Your task to perform on an android device: Search for vegetarian restaurants on Maps Image 0: 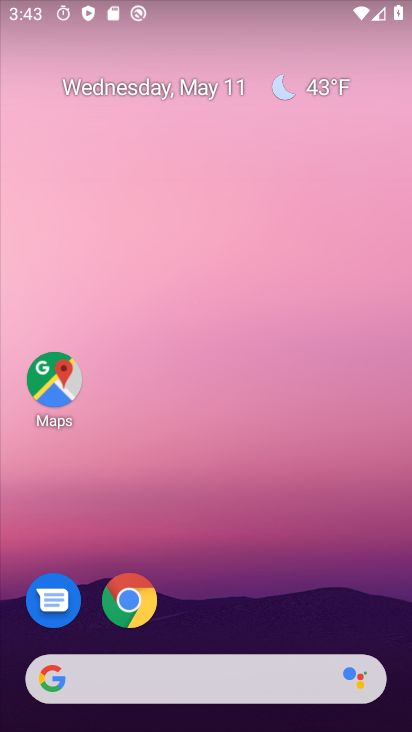
Step 0: drag from (331, 638) to (151, 12)
Your task to perform on an android device: Search for vegetarian restaurants on Maps Image 1: 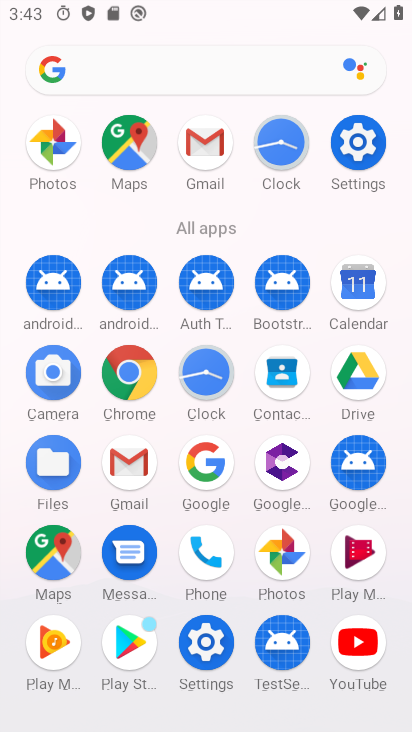
Step 1: click (132, 141)
Your task to perform on an android device: Search for vegetarian restaurants on Maps Image 2: 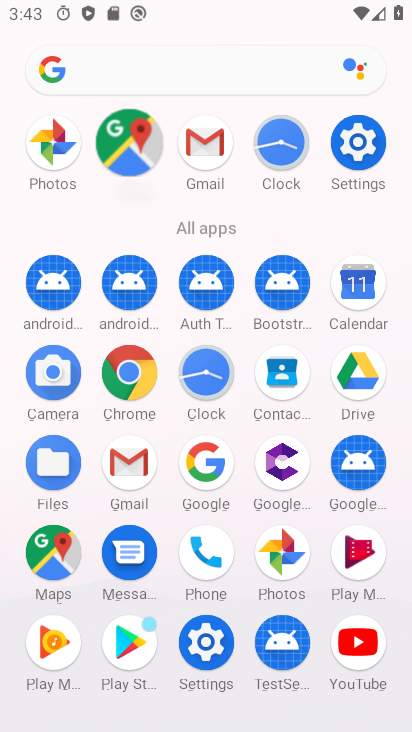
Step 2: click (133, 142)
Your task to perform on an android device: Search for vegetarian restaurants on Maps Image 3: 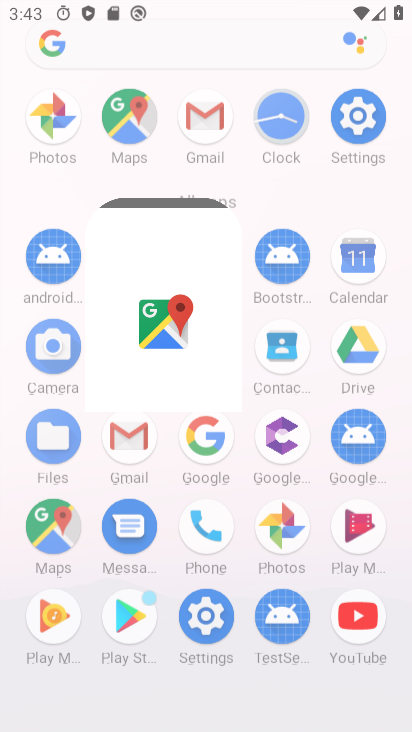
Step 3: click (132, 143)
Your task to perform on an android device: Search for vegetarian restaurants on Maps Image 4: 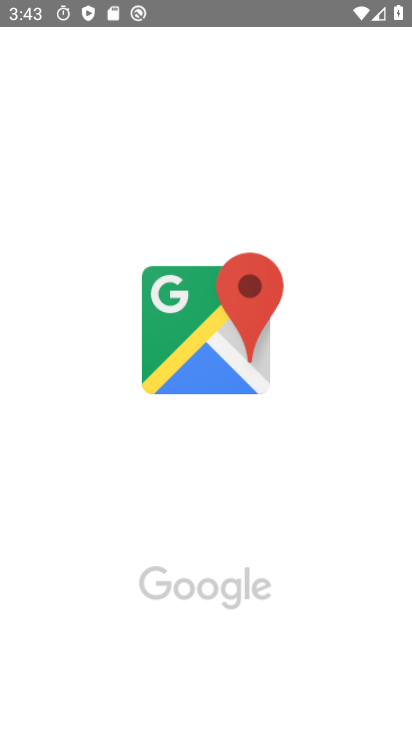
Step 4: click (132, 143)
Your task to perform on an android device: Search for vegetarian restaurants on Maps Image 5: 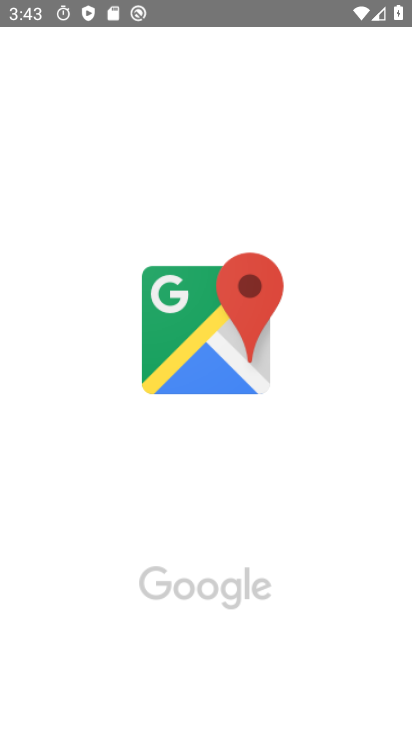
Step 5: click (227, 336)
Your task to perform on an android device: Search for vegetarian restaurants on Maps Image 6: 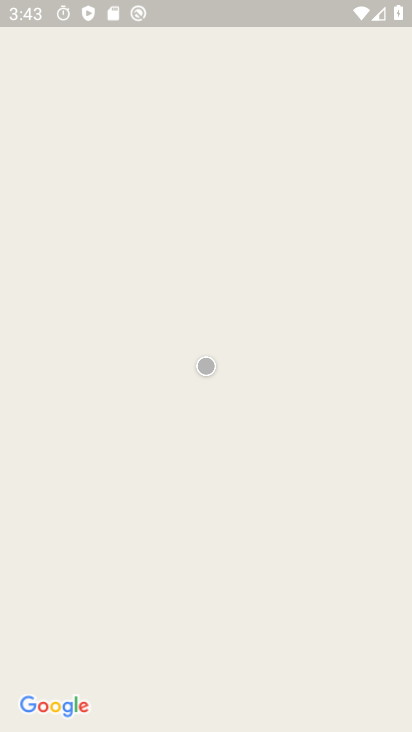
Step 6: drag from (210, 359) to (212, 412)
Your task to perform on an android device: Search for vegetarian restaurants on Maps Image 7: 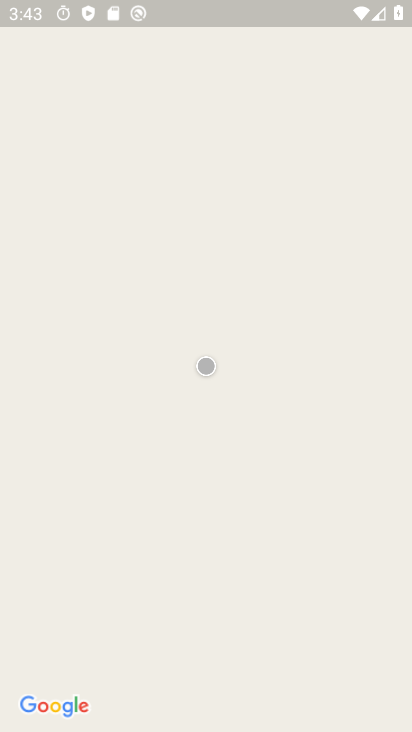
Step 7: drag from (180, 209) to (185, 582)
Your task to perform on an android device: Search for vegetarian restaurants on Maps Image 8: 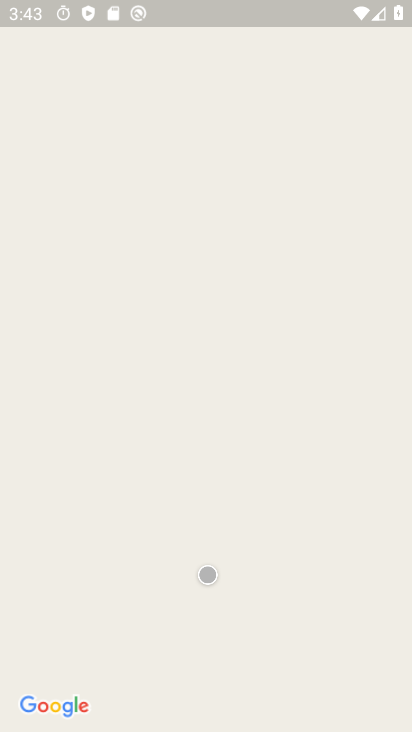
Step 8: drag from (150, 256) to (242, 558)
Your task to perform on an android device: Search for vegetarian restaurants on Maps Image 9: 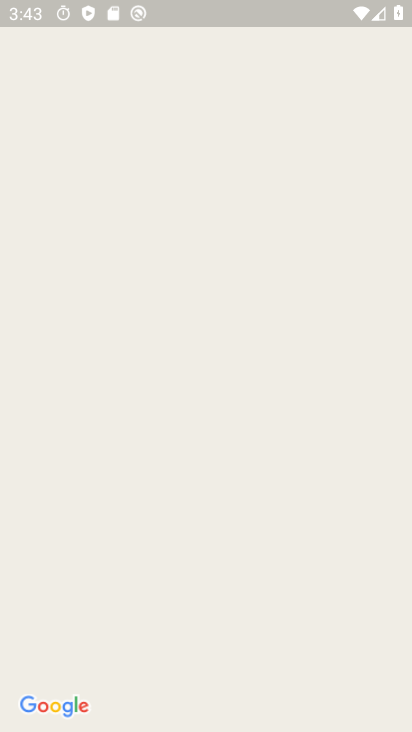
Step 9: drag from (168, 244) to (202, 96)
Your task to perform on an android device: Search for vegetarian restaurants on Maps Image 10: 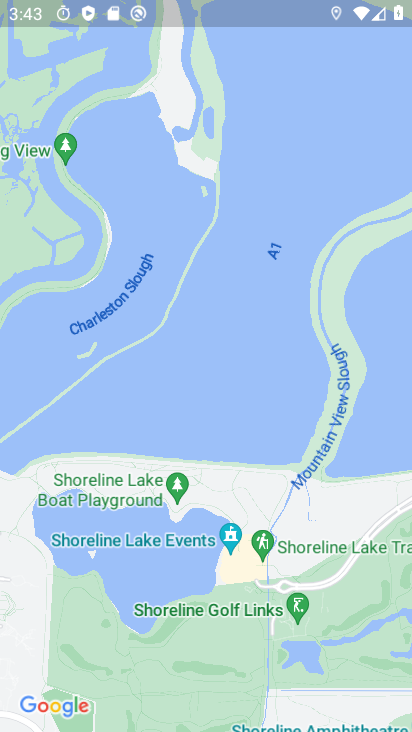
Step 10: press home button
Your task to perform on an android device: Search for vegetarian restaurants on Maps Image 11: 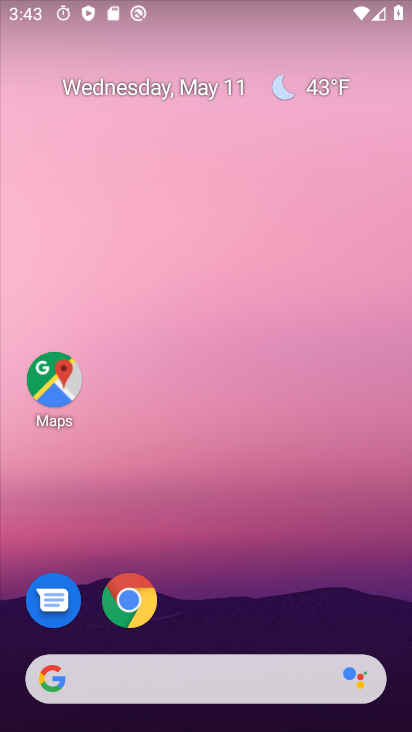
Step 11: drag from (206, 486) to (83, 3)
Your task to perform on an android device: Search for vegetarian restaurants on Maps Image 12: 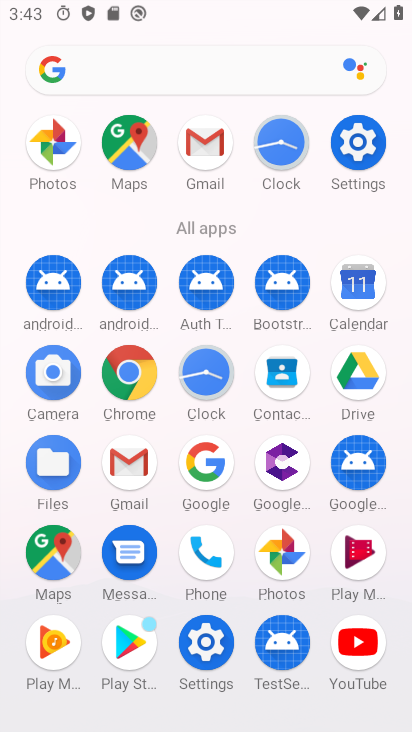
Step 12: click (125, 151)
Your task to perform on an android device: Search for vegetarian restaurants on Maps Image 13: 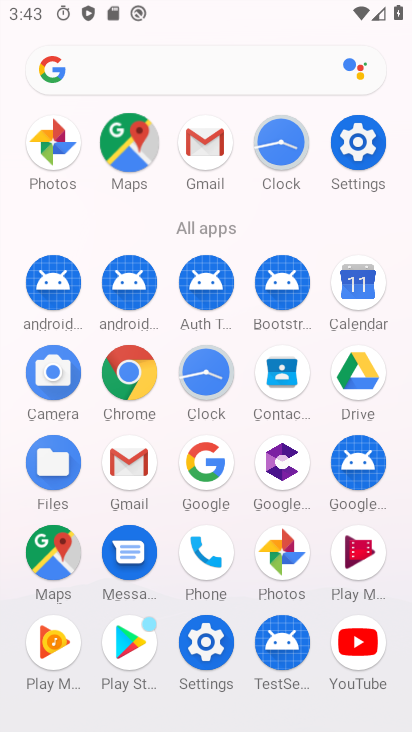
Step 13: click (125, 151)
Your task to perform on an android device: Search for vegetarian restaurants on Maps Image 14: 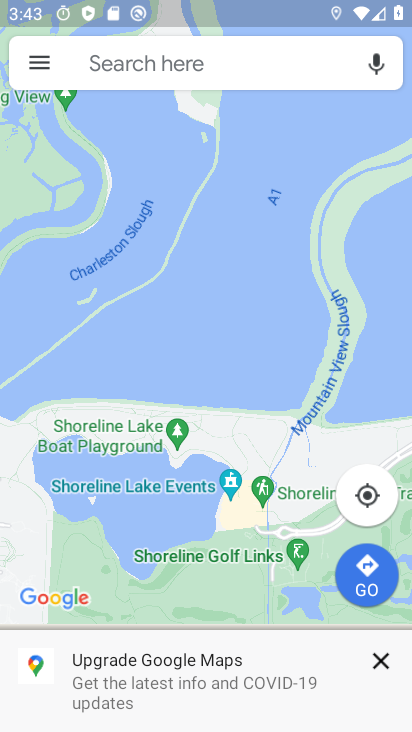
Step 14: click (123, 107)
Your task to perform on an android device: Search for vegetarian restaurants on Maps Image 15: 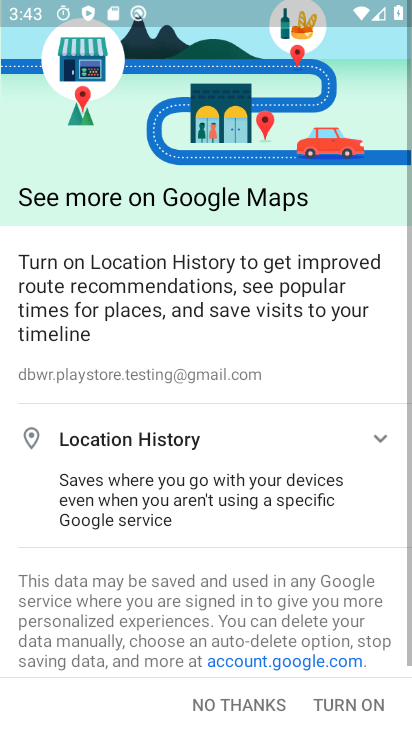
Step 15: press back button
Your task to perform on an android device: Search for vegetarian restaurants on Maps Image 16: 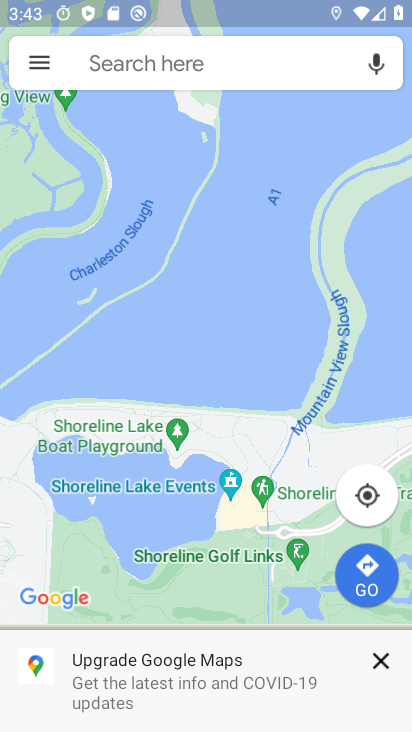
Step 16: click (112, 60)
Your task to perform on an android device: Search for vegetarian restaurants on Maps Image 17: 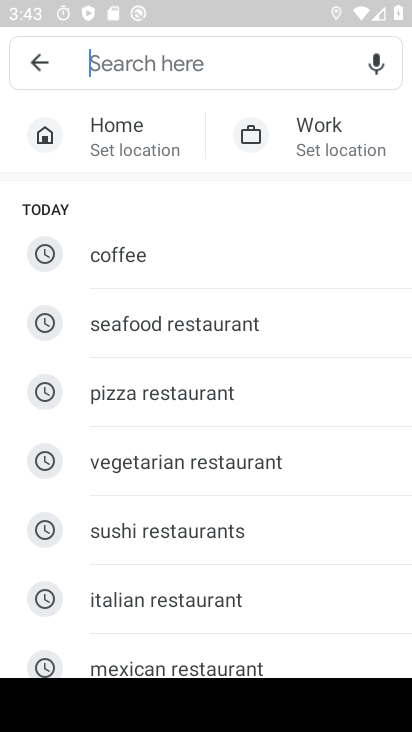
Step 17: click (177, 439)
Your task to perform on an android device: Search for vegetarian restaurants on Maps Image 18: 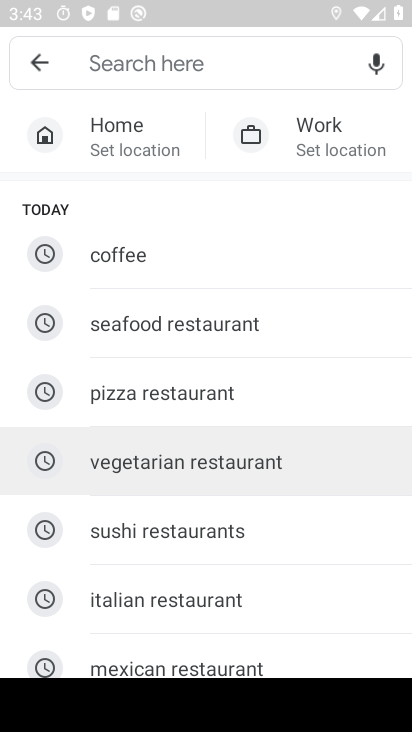
Step 18: click (179, 460)
Your task to perform on an android device: Search for vegetarian restaurants on Maps Image 19: 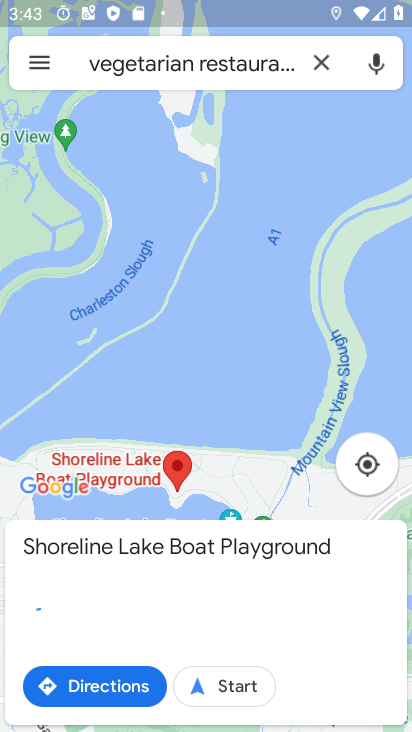
Step 19: task complete